Your task to perform on an android device: Open Google Chrome and open the bookmarks view Image 0: 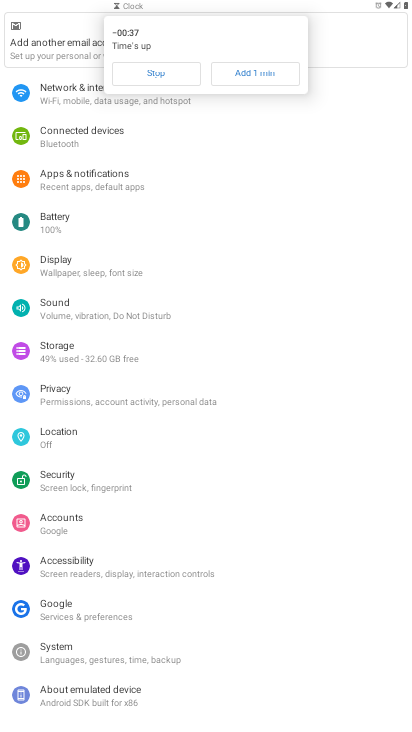
Step 0: press home button
Your task to perform on an android device: Open Google Chrome and open the bookmarks view Image 1: 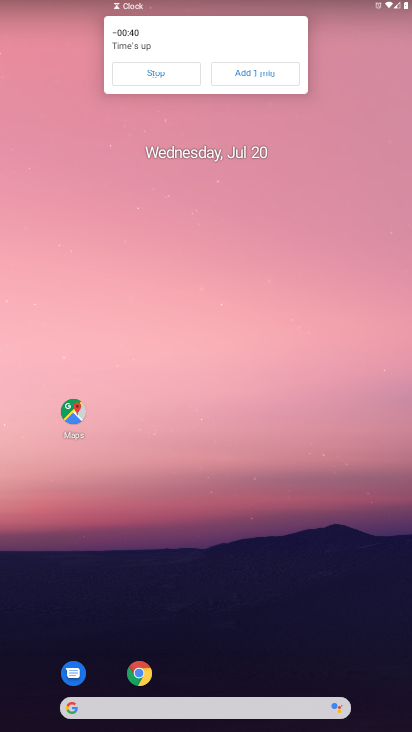
Step 1: click (241, 304)
Your task to perform on an android device: Open Google Chrome and open the bookmarks view Image 2: 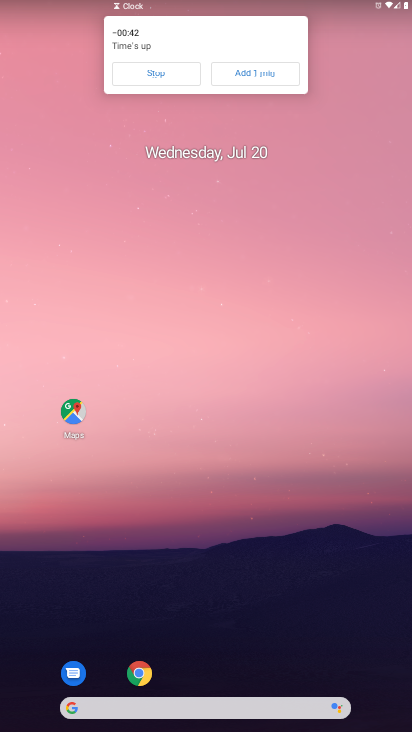
Step 2: click (154, 70)
Your task to perform on an android device: Open Google Chrome and open the bookmarks view Image 3: 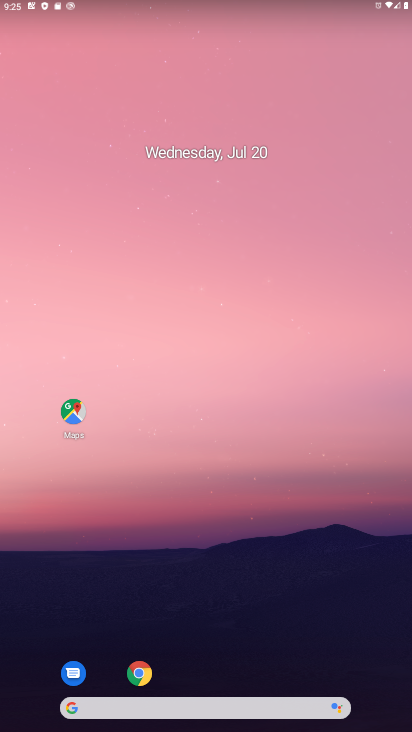
Step 3: drag from (230, 701) to (198, 252)
Your task to perform on an android device: Open Google Chrome and open the bookmarks view Image 4: 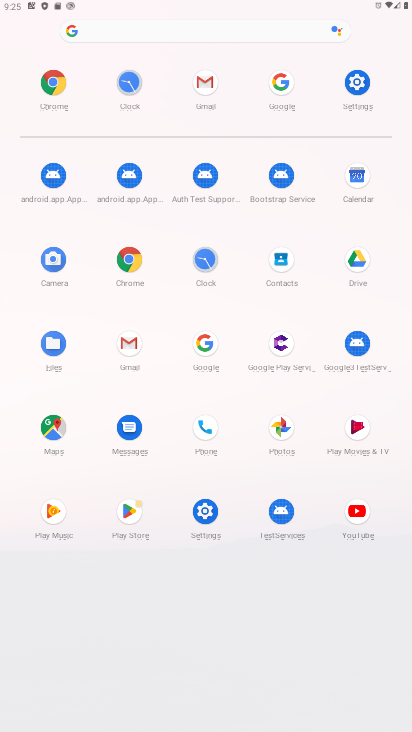
Step 4: click (129, 260)
Your task to perform on an android device: Open Google Chrome and open the bookmarks view Image 5: 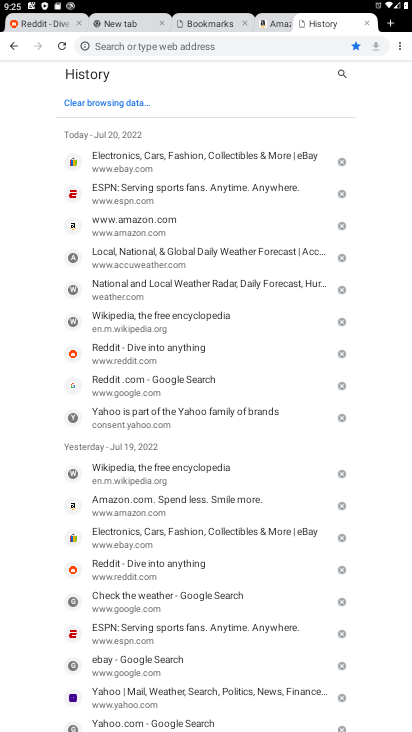
Step 5: click (399, 51)
Your task to perform on an android device: Open Google Chrome and open the bookmarks view Image 6: 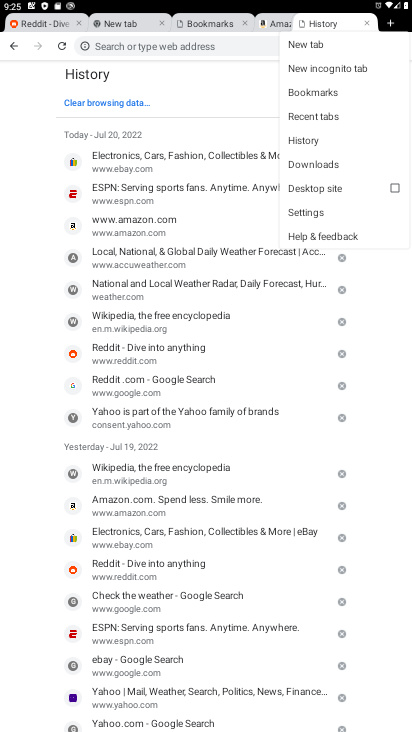
Step 6: click (327, 90)
Your task to perform on an android device: Open Google Chrome and open the bookmarks view Image 7: 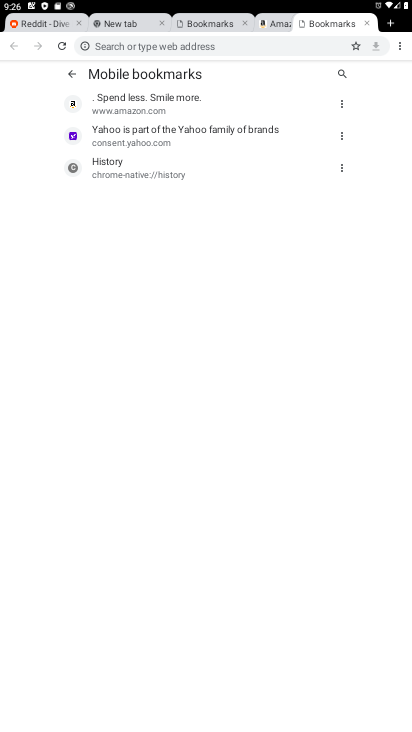
Step 7: task complete